Your task to perform on an android device: toggle notification dots Image 0: 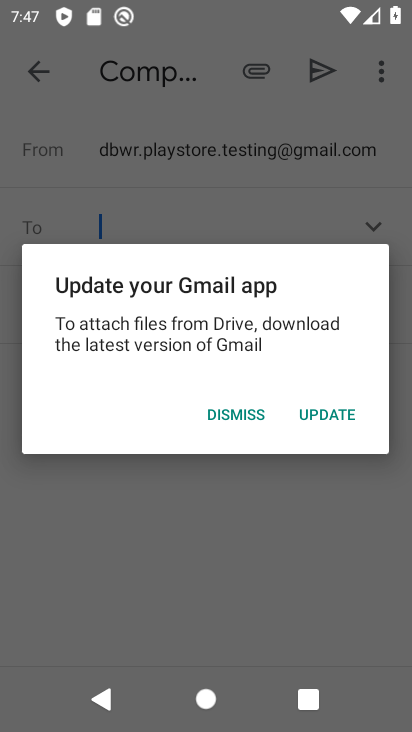
Step 0: press home button
Your task to perform on an android device: toggle notification dots Image 1: 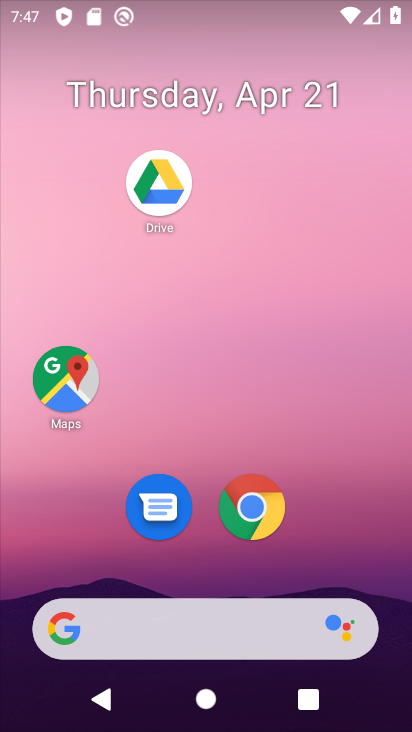
Step 1: drag from (347, 506) to (366, 176)
Your task to perform on an android device: toggle notification dots Image 2: 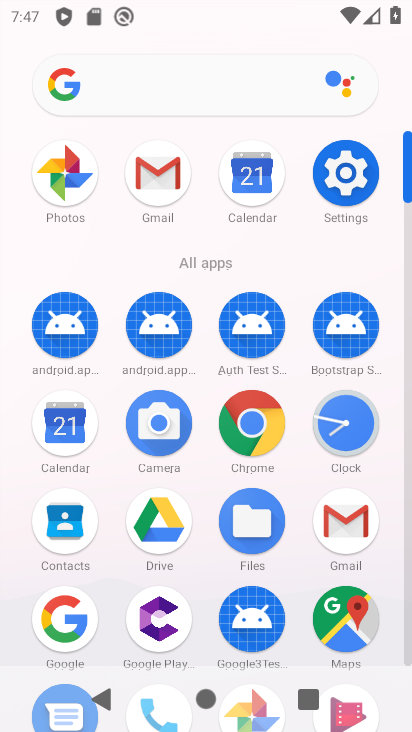
Step 2: click (353, 188)
Your task to perform on an android device: toggle notification dots Image 3: 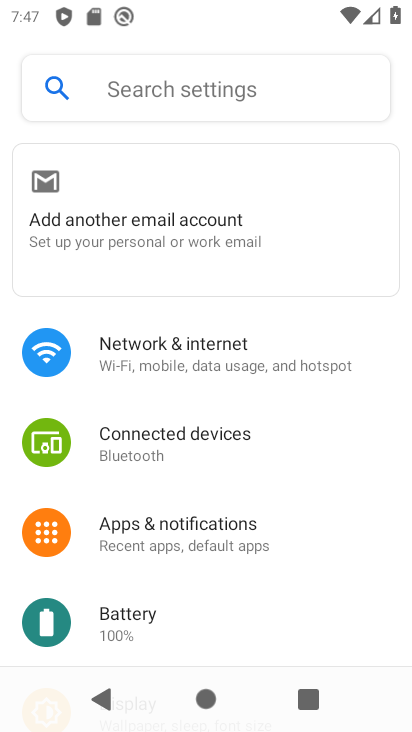
Step 3: drag from (365, 567) to (373, 388)
Your task to perform on an android device: toggle notification dots Image 4: 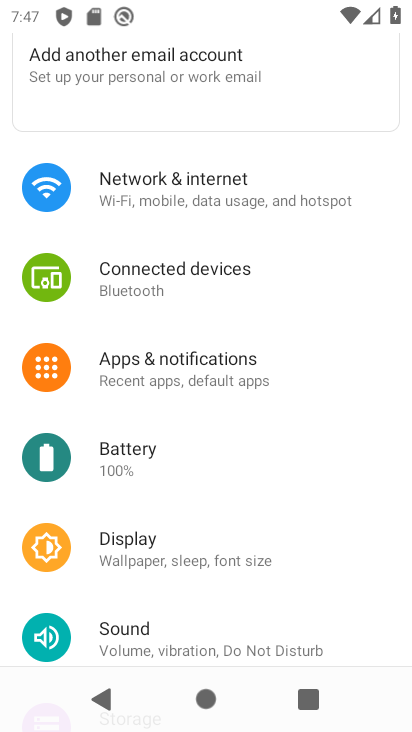
Step 4: drag from (361, 594) to (355, 376)
Your task to perform on an android device: toggle notification dots Image 5: 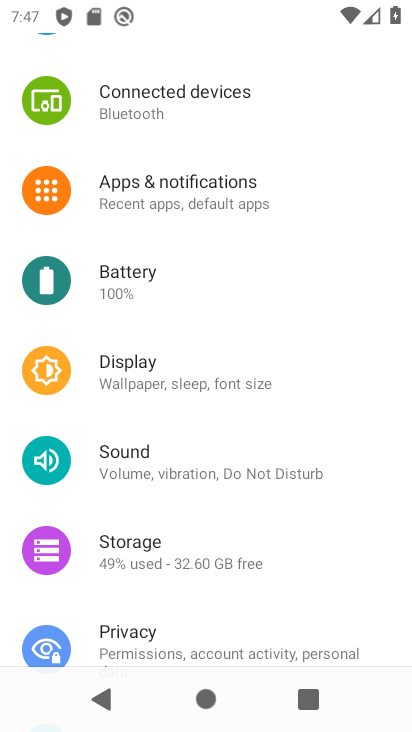
Step 5: drag from (355, 588) to (368, 365)
Your task to perform on an android device: toggle notification dots Image 6: 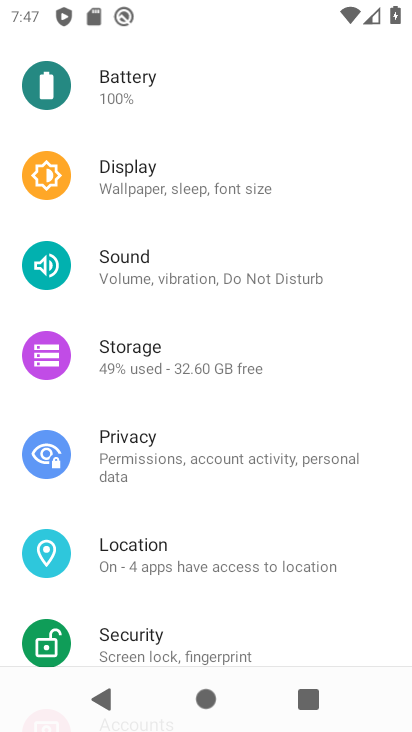
Step 6: drag from (368, 611) to (373, 357)
Your task to perform on an android device: toggle notification dots Image 7: 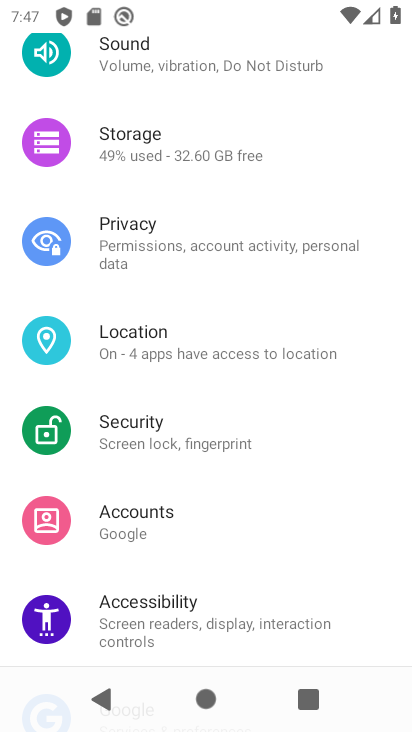
Step 7: drag from (378, 207) to (379, 434)
Your task to perform on an android device: toggle notification dots Image 8: 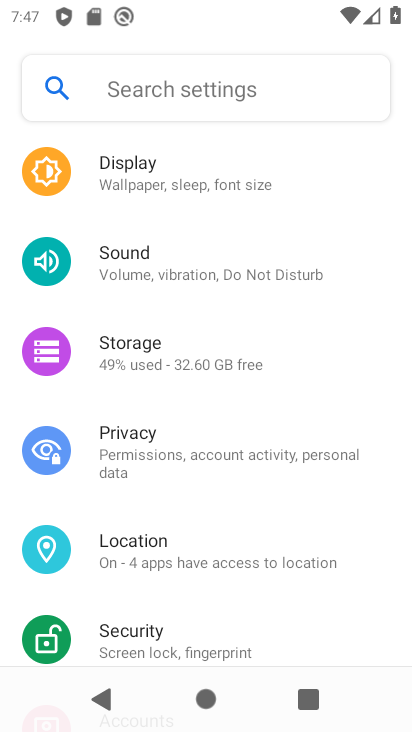
Step 8: drag from (379, 272) to (381, 486)
Your task to perform on an android device: toggle notification dots Image 9: 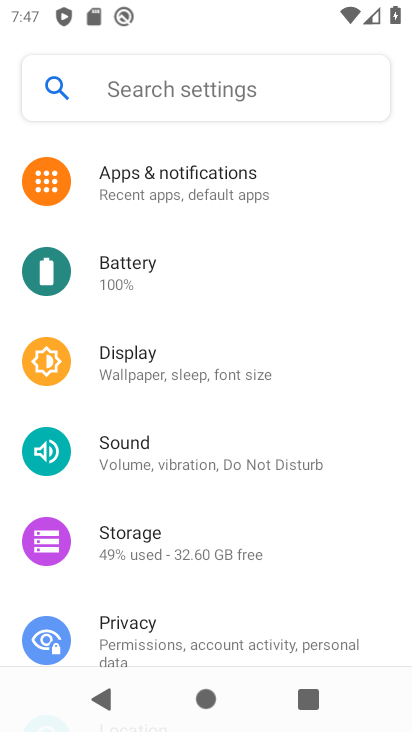
Step 9: drag from (361, 241) to (347, 439)
Your task to perform on an android device: toggle notification dots Image 10: 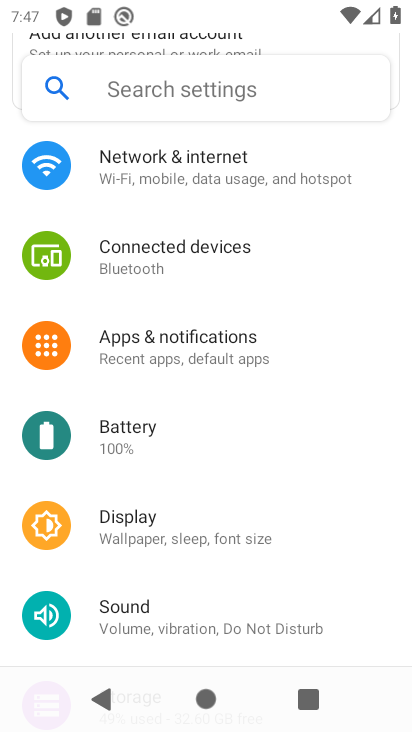
Step 10: click (238, 352)
Your task to perform on an android device: toggle notification dots Image 11: 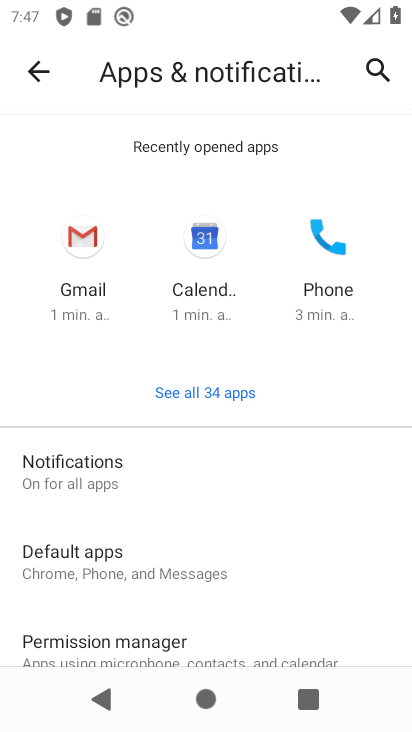
Step 11: click (110, 489)
Your task to perform on an android device: toggle notification dots Image 12: 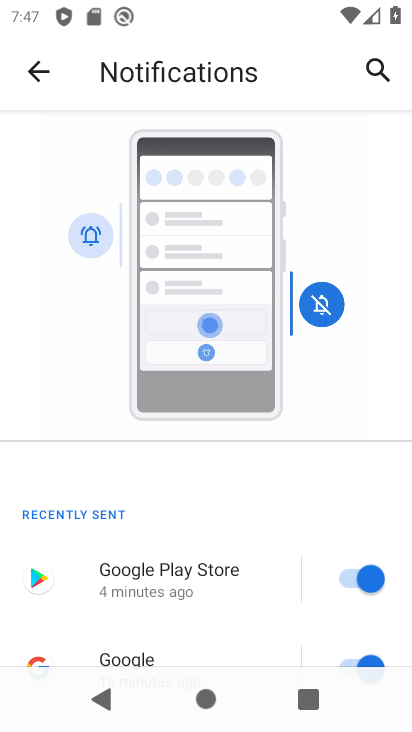
Step 12: drag from (276, 559) to (281, 279)
Your task to perform on an android device: toggle notification dots Image 13: 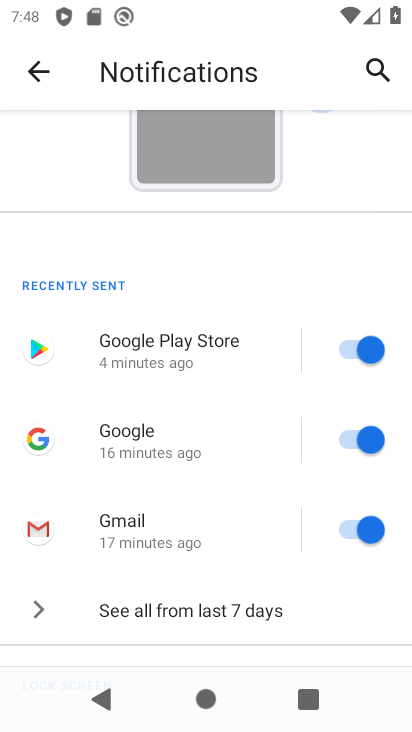
Step 13: drag from (267, 498) to (284, 260)
Your task to perform on an android device: toggle notification dots Image 14: 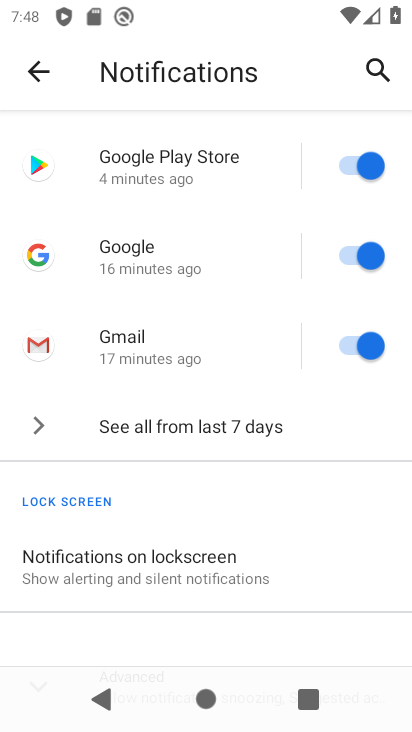
Step 14: drag from (298, 545) to (285, 337)
Your task to perform on an android device: toggle notification dots Image 15: 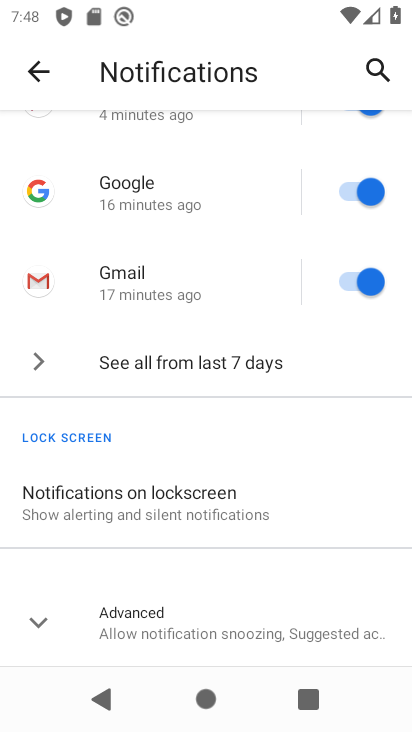
Step 15: click (216, 622)
Your task to perform on an android device: toggle notification dots Image 16: 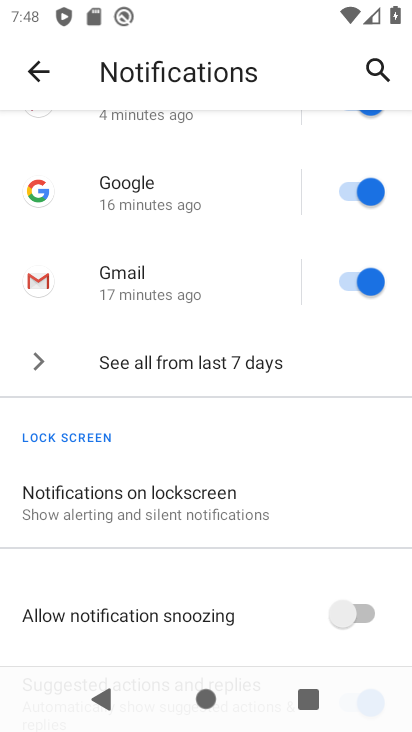
Step 16: drag from (292, 550) to (289, 337)
Your task to perform on an android device: toggle notification dots Image 17: 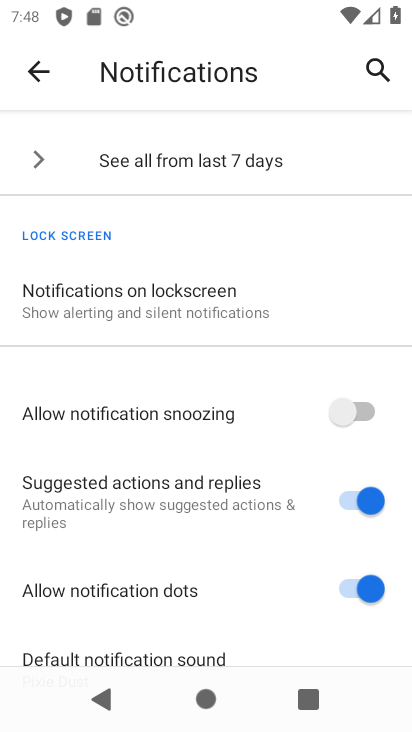
Step 17: drag from (279, 562) to (292, 405)
Your task to perform on an android device: toggle notification dots Image 18: 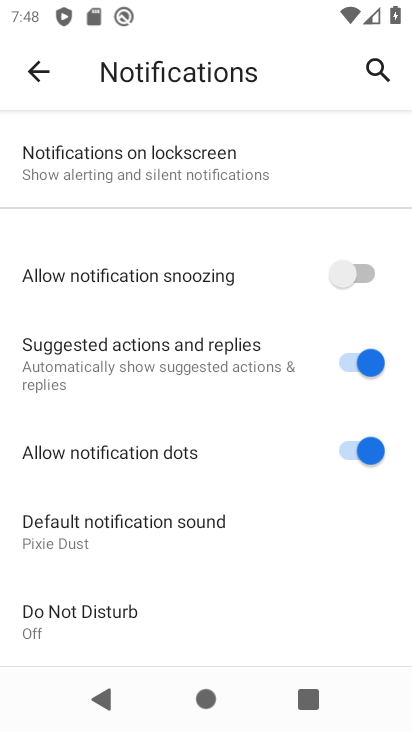
Step 18: click (352, 454)
Your task to perform on an android device: toggle notification dots Image 19: 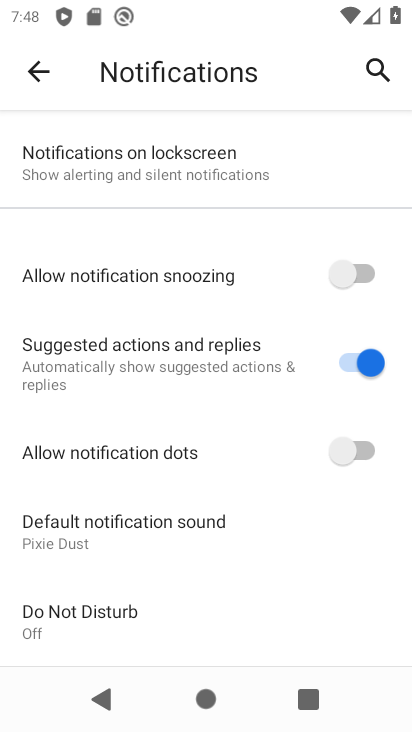
Step 19: task complete